Your task to perform on an android device: move a message to another label in the gmail app Image 0: 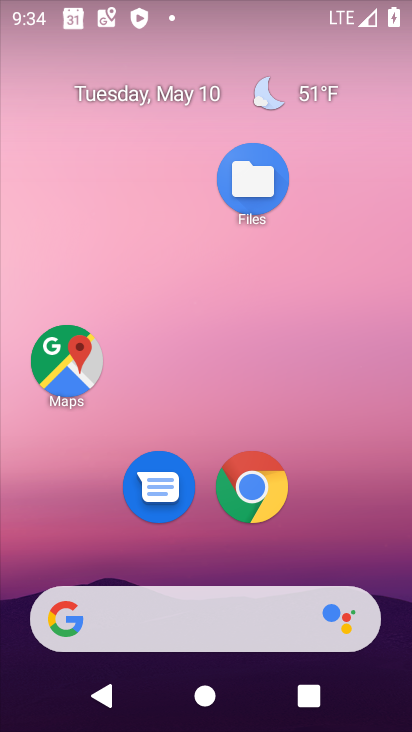
Step 0: drag from (191, 550) to (140, 37)
Your task to perform on an android device: move a message to another label in the gmail app Image 1: 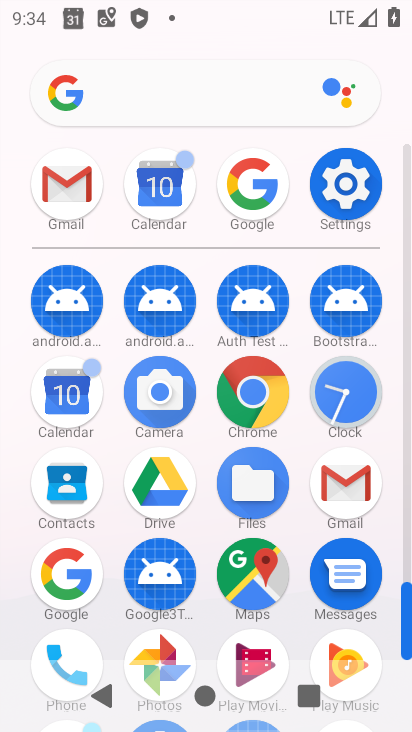
Step 1: click (71, 183)
Your task to perform on an android device: move a message to another label in the gmail app Image 2: 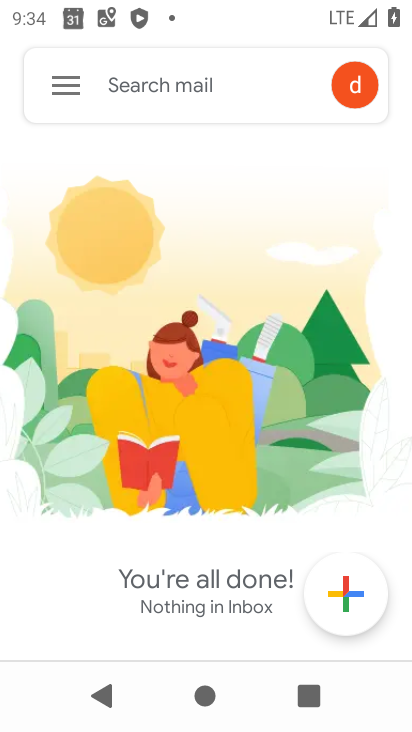
Step 2: click (56, 102)
Your task to perform on an android device: move a message to another label in the gmail app Image 3: 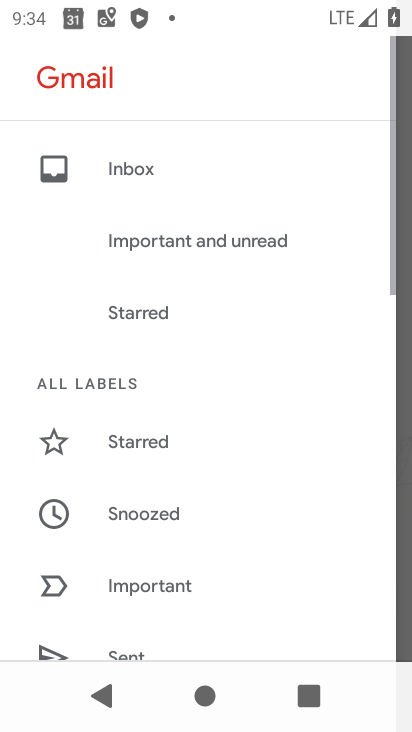
Step 3: drag from (186, 548) to (173, 78)
Your task to perform on an android device: move a message to another label in the gmail app Image 4: 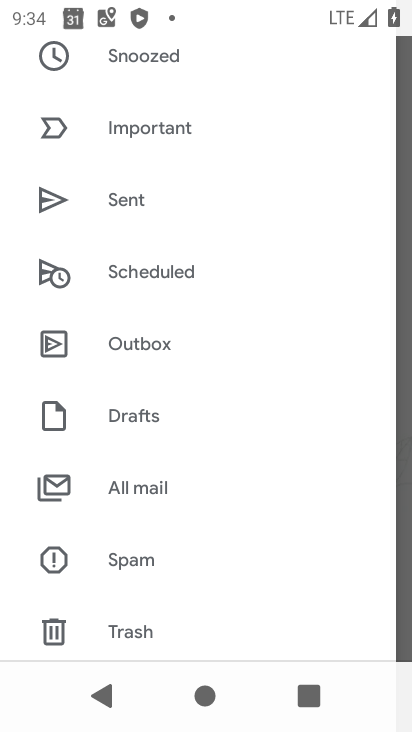
Step 4: click (152, 503)
Your task to perform on an android device: move a message to another label in the gmail app Image 5: 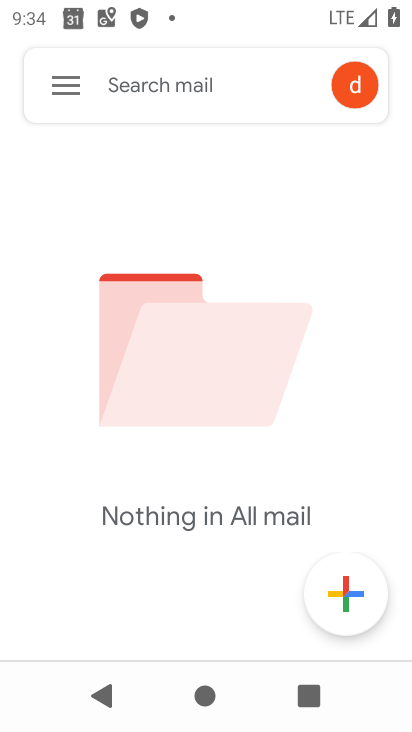
Step 5: task complete